Your task to perform on an android device: Go to ESPN.com Image 0: 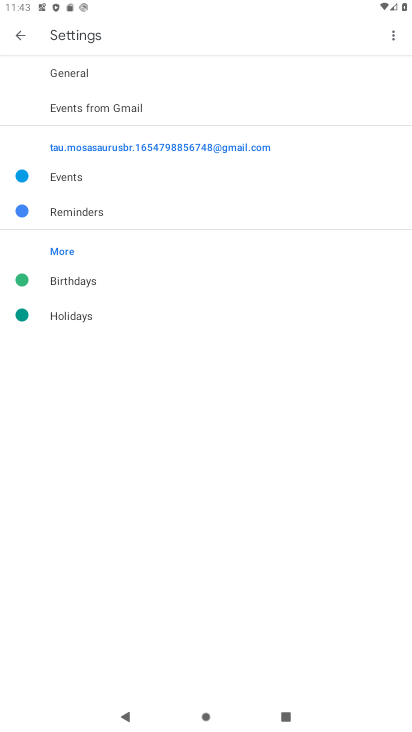
Step 0: press home button
Your task to perform on an android device: Go to ESPN.com Image 1: 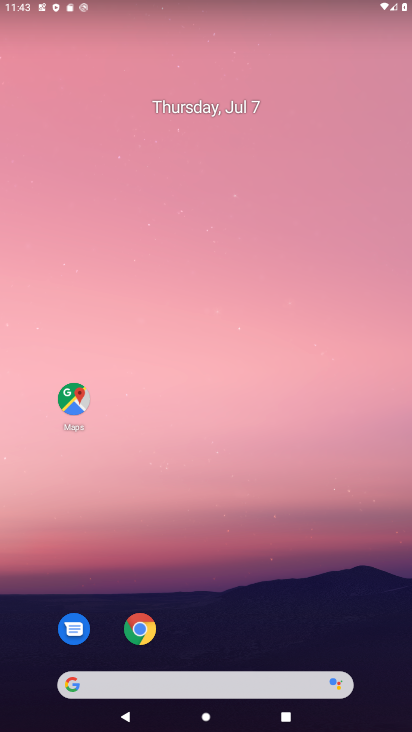
Step 1: click (143, 630)
Your task to perform on an android device: Go to ESPN.com Image 2: 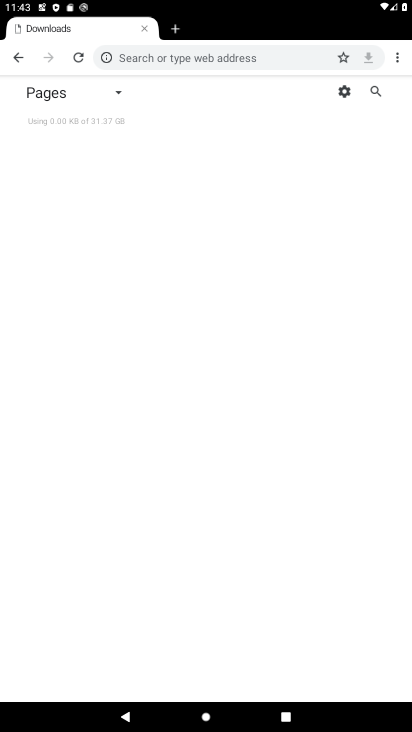
Step 2: click (179, 57)
Your task to perform on an android device: Go to ESPN.com Image 3: 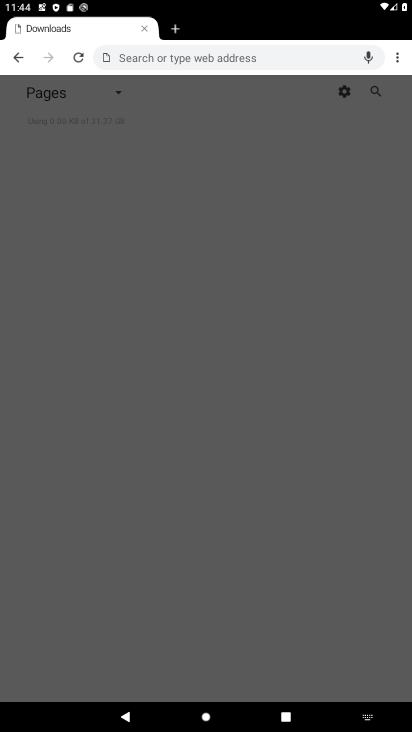
Step 3: type "ESPN.com"
Your task to perform on an android device: Go to ESPN.com Image 4: 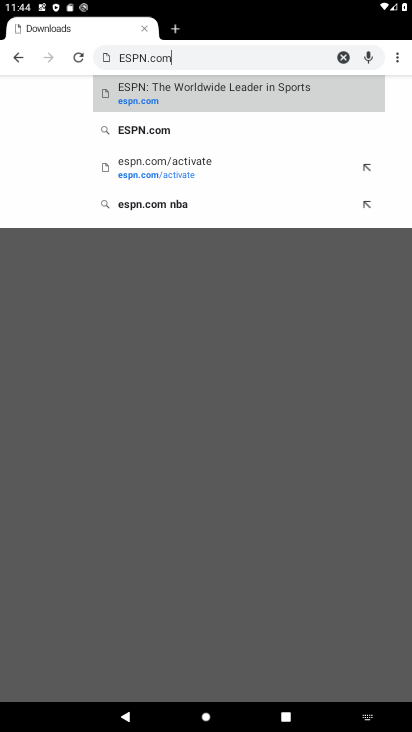
Step 4: click (141, 86)
Your task to perform on an android device: Go to ESPN.com Image 5: 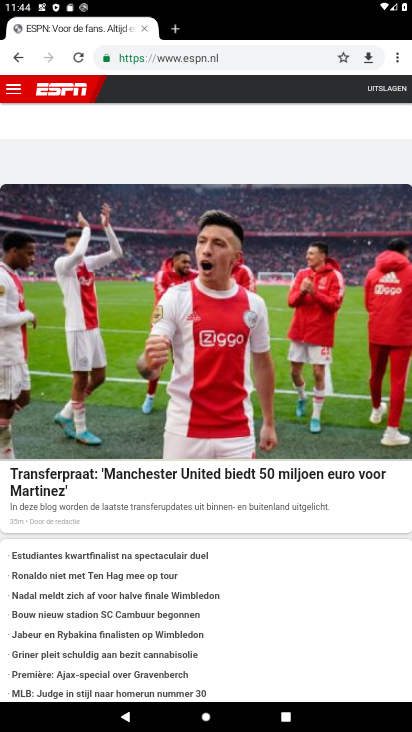
Step 5: task complete